Your task to perform on an android device: toggle location history Image 0: 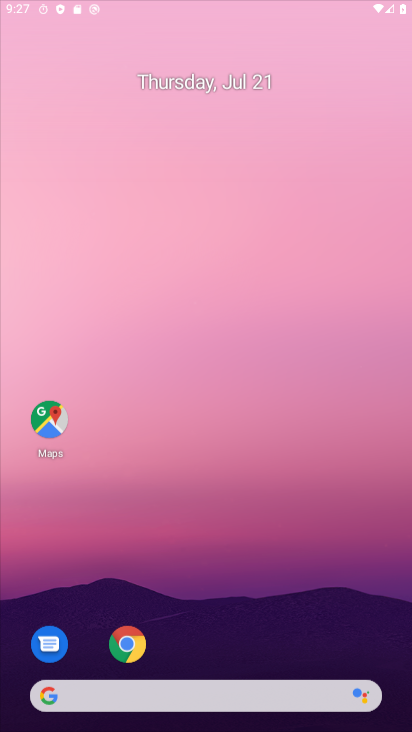
Step 0: click (238, 187)
Your task to perform on an android device: toggle location history Image 1: 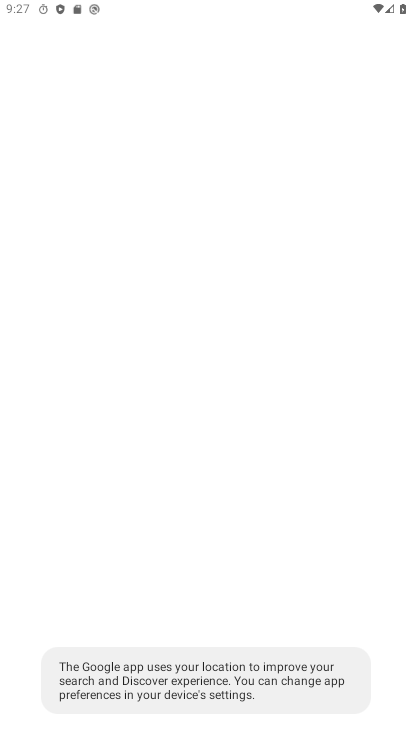
Step 1: press back button
Your task to perform on an android device: toggle location history Image 2: 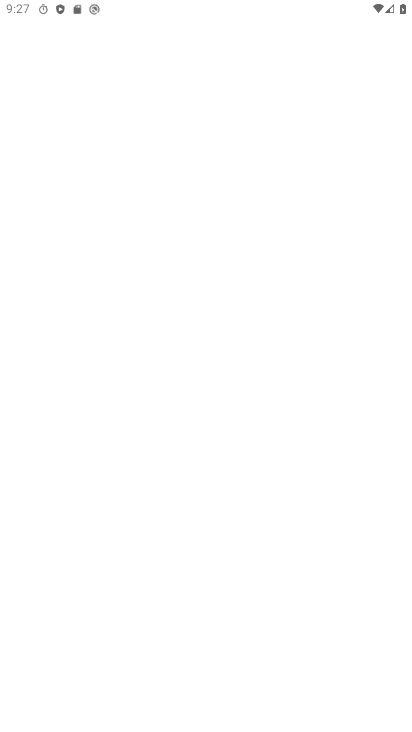
Step 2: press back button
Your task to perform on an android device: toggle location history Image 3: 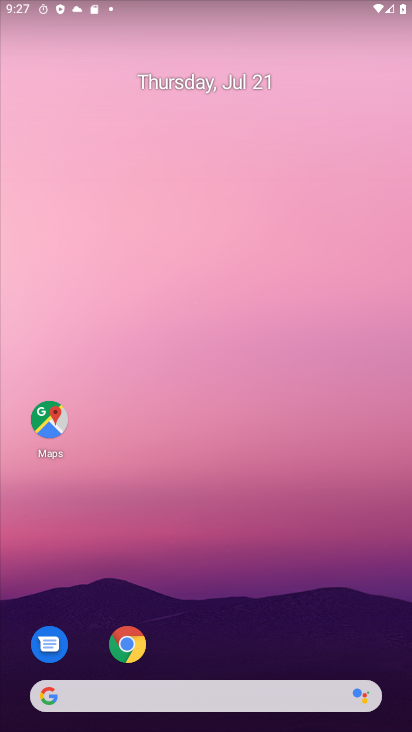
Step 3: press home button
Your task to perform on an android device: toggle location history Image 4: 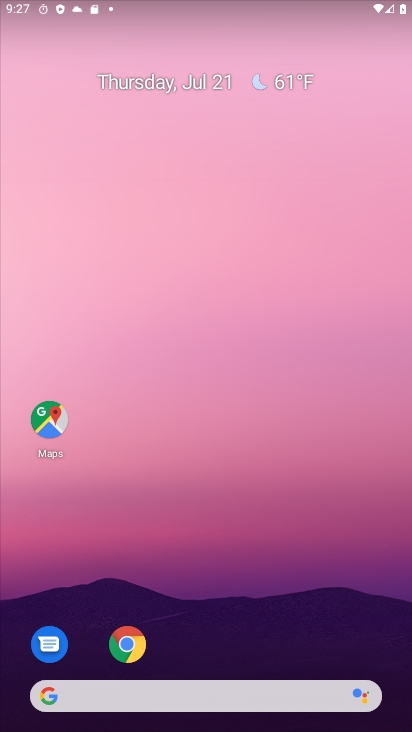
Step 4: drag from (246, 577) to (261, 305)
Your task to perform on an android device: toggle location history Image 5: 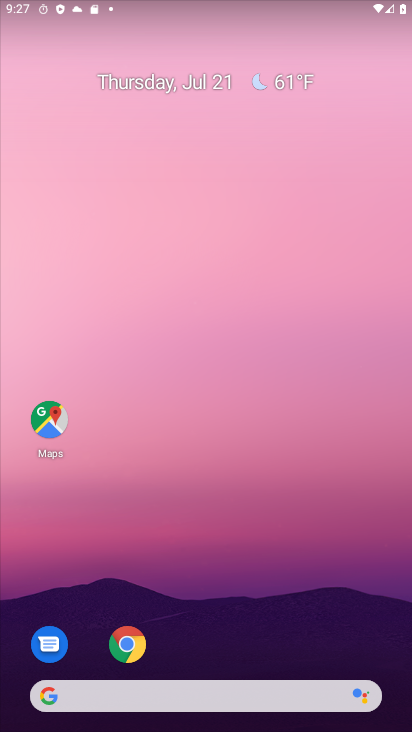
Step 5: drag from (209, 602) to (191, 195)
Your task to perform on an android device: toggle location history Image 6: 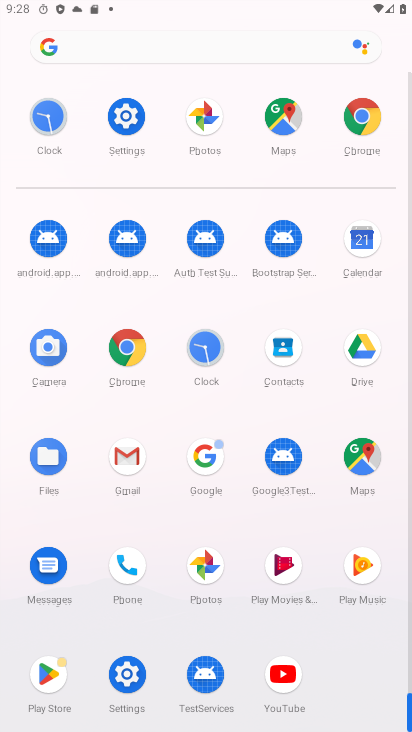
Step 6: click (121, 136)
Your task to perform on an android device: toggle location history Image 7: 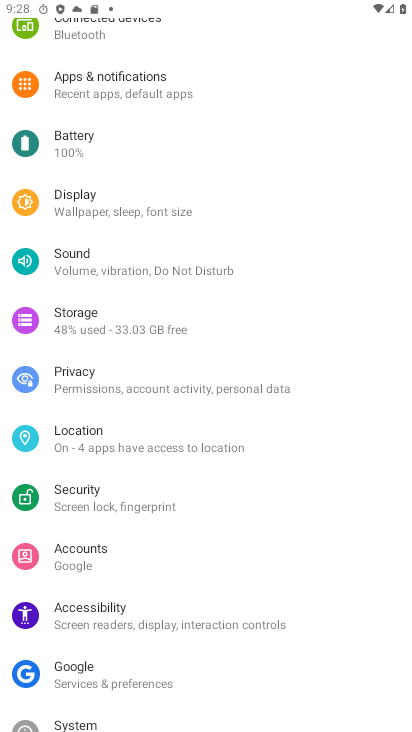
Step 7: click (105, 436)
Your task to perform on an android device: toggle location history Image 8: 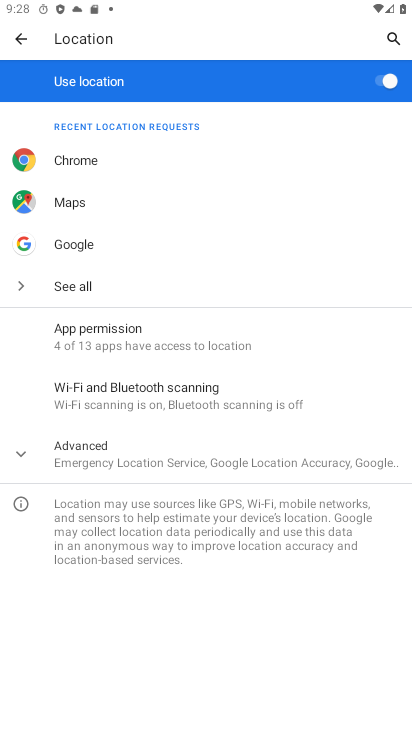
Step 8: click (146, 456)
Your task to perform on an android device: toggle location history Image 9: 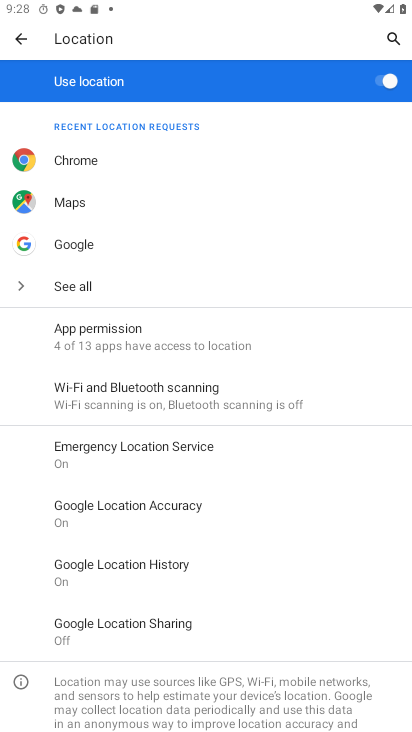
Step 9: click (147, 544)
Your task to perform on an android device: toggle location history Image 10: 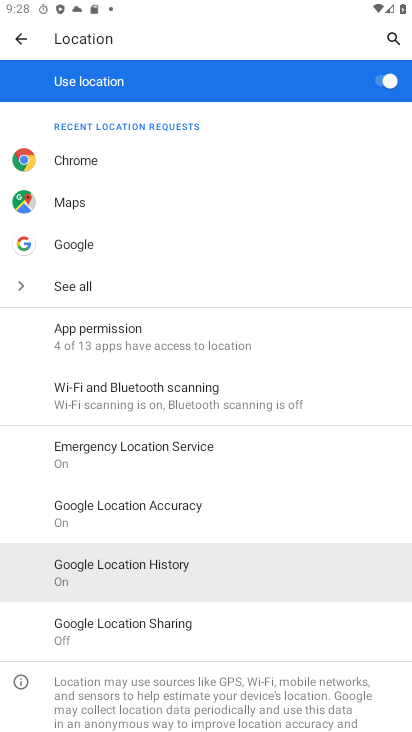
Step 10: click (150, 577)
Your task to perform on an android device: toggle location history Image 11: 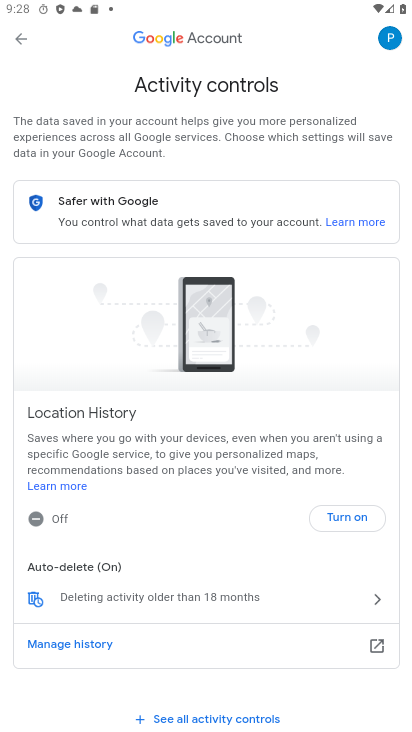
Step 11: click (345, 513)
Your task to perform on an android device: toggle location history Image 12: 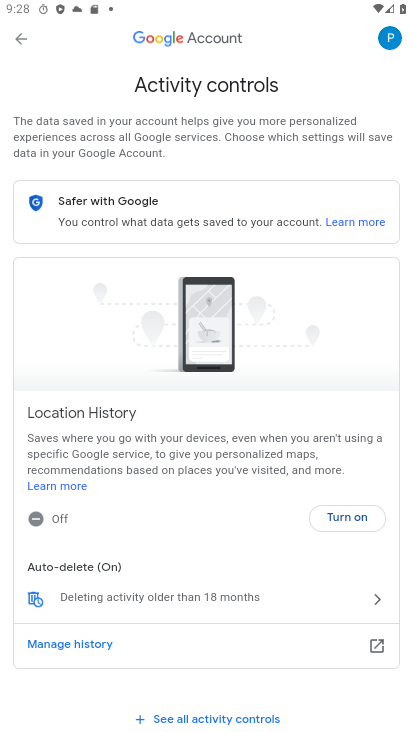
Step 12: click (345, 513)
Your task to perform on an android device: toggle location history Image 13: 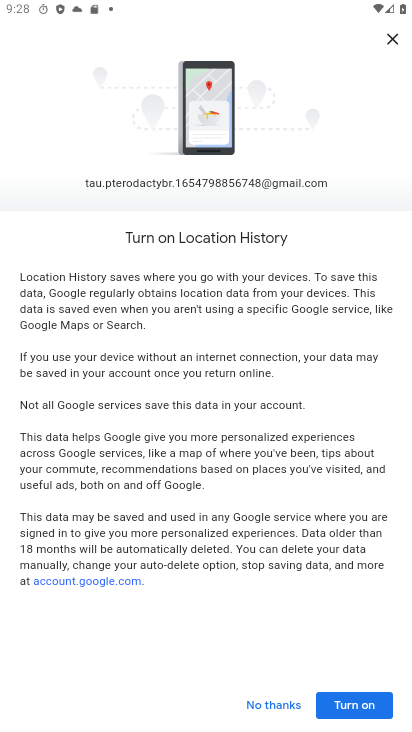
Step 13: click (307, 701)
Your task to perform on an android device: toggle location history Image 14: 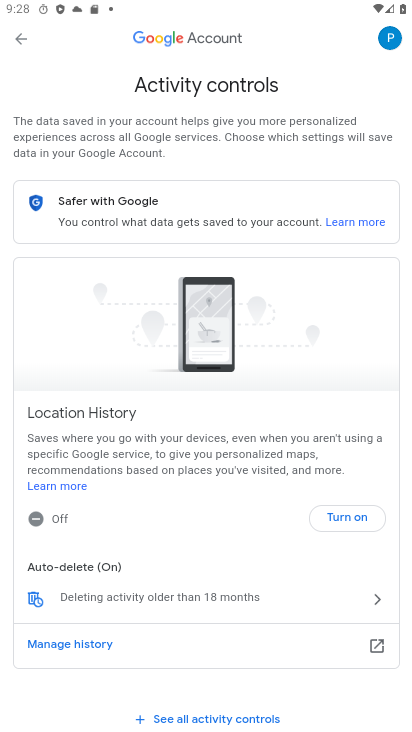
Step 14: task complete